Your task to perform on an android device: Empty the shopping cart on costco.com. Add razer deathadder to the cart on costco.com, then select checkout. Image 0: 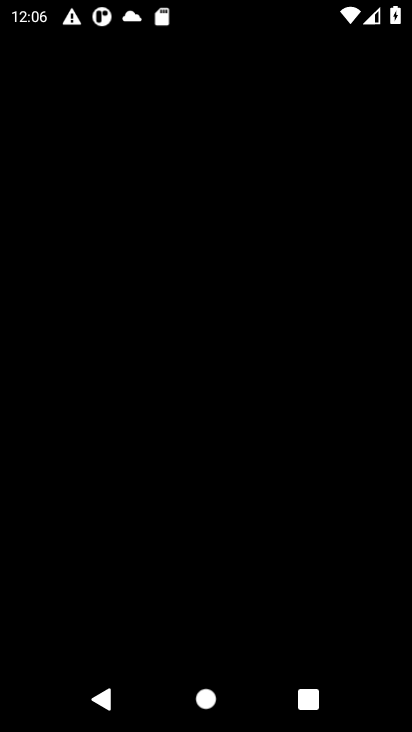
Step 0: task complete